Your task to perform on an android device: set the timer Image 0: 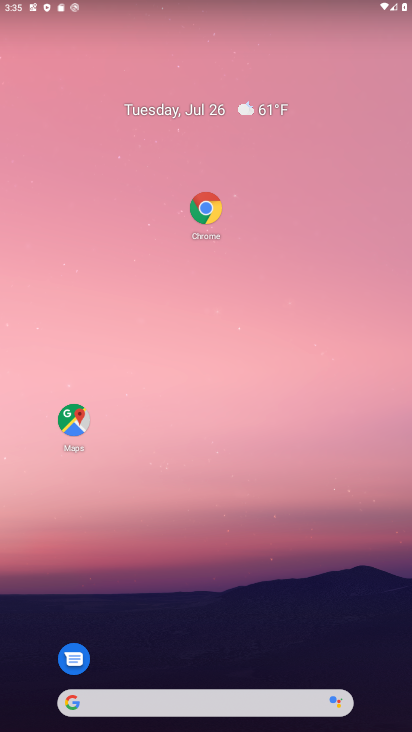
Step 0: drag from (187, 650) to (214, 197)
Your task to perform on an android device: set the timer Image 1: 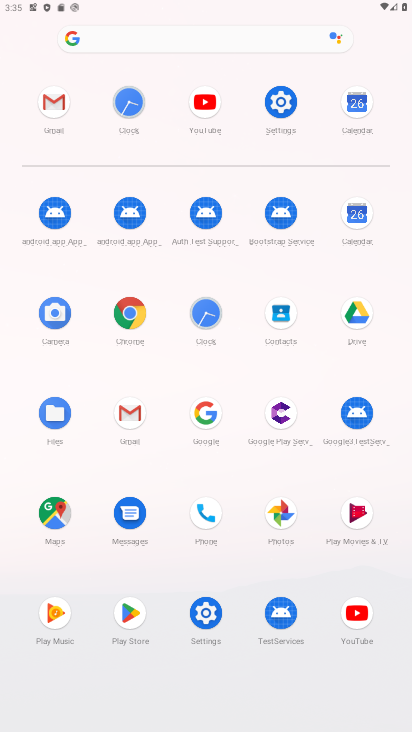
Step 1: click (129, 126)
Your task to perform on an android device: set the timer Image 2: 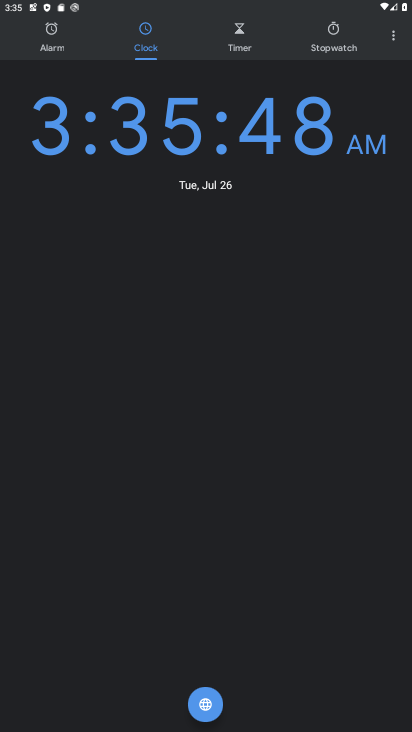
Step 2: click (239, 45)
Your task to perform on an android device: set the timer Image 3: 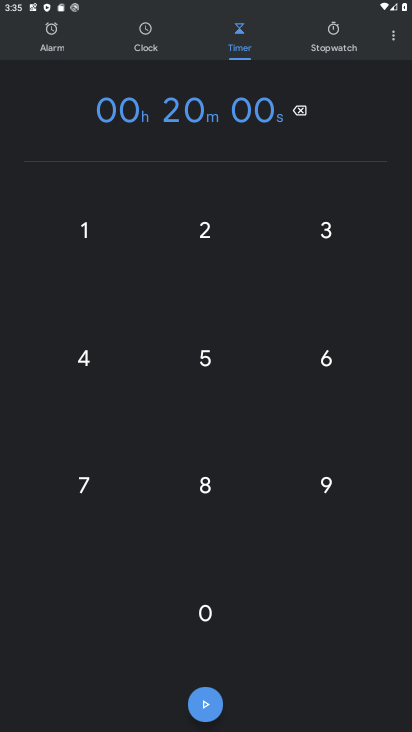
Step 3: click (203, 229)
Your task to perform on an android device: set the timer Image 4: 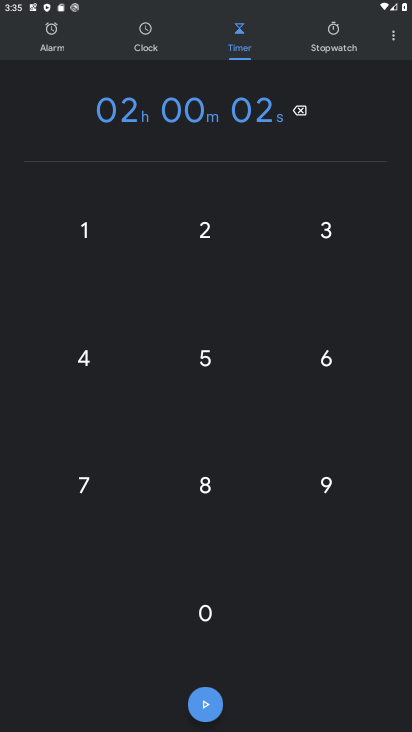
Step 4: click (213, 612)
Your task to perform on an android device: set the timer Image 5: 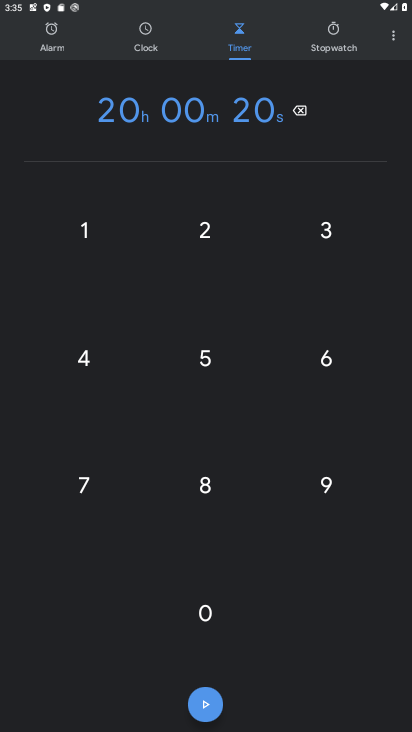
Step 5: click (213, 612)
Your task to perform on an android device: set the timer Image 6: 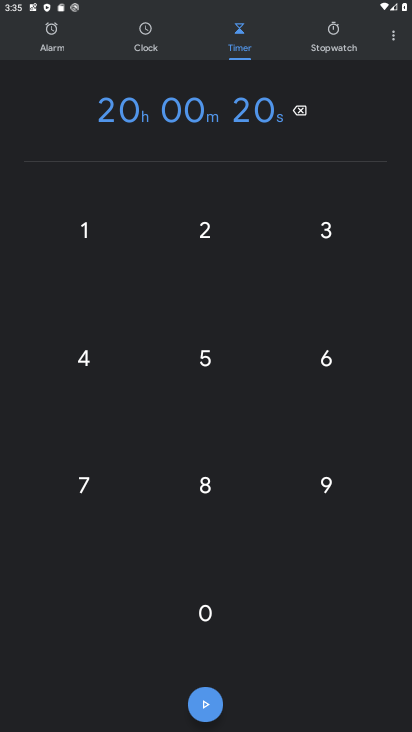
Step 6: click (213, 612)
Your task to perform on an android device: set the timer Image 7: 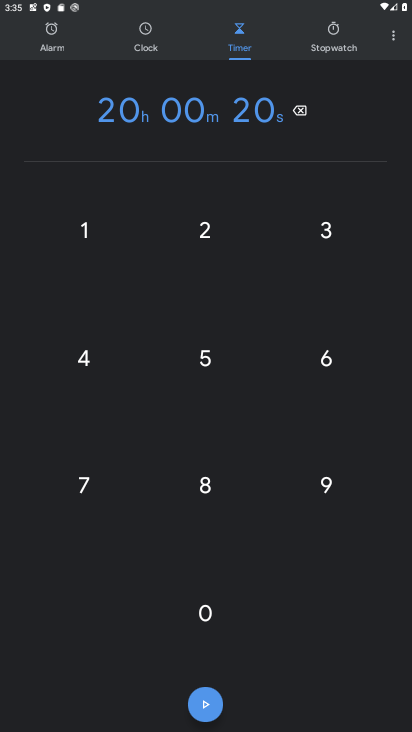
Step 7: click (216, 723)
Your task to perform on an android device: set the timer Image 8: 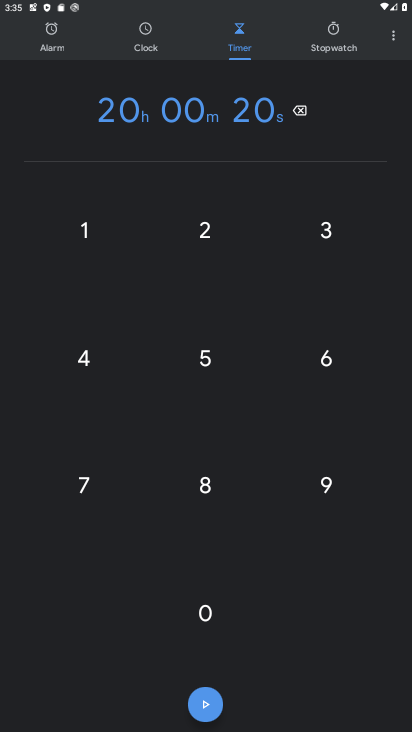
Step 8: click (203, 709)
Your task to perform on an android device: set the timer Image 9: 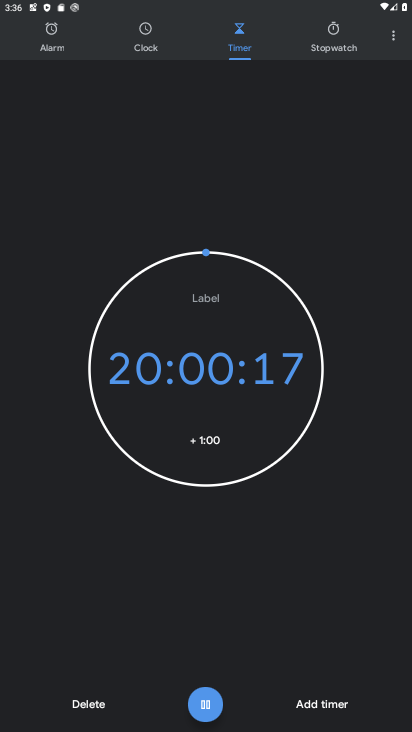
Step 9: click (316, 695)
Your task to perform on an android device: set the timer Image 10: 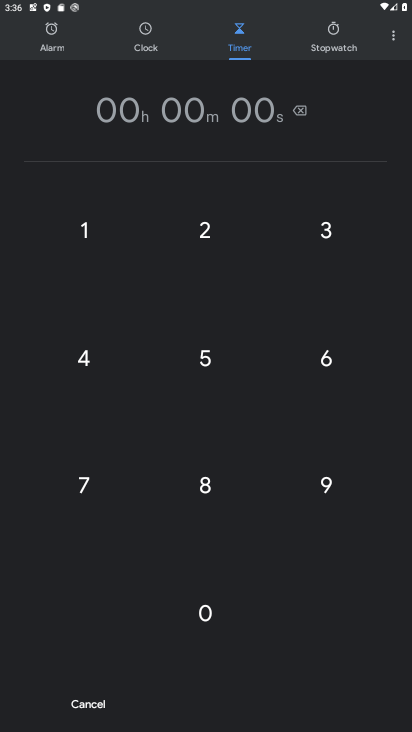
Step 10: task complete